Your task to perform on an android device: show emergency info Image 0: 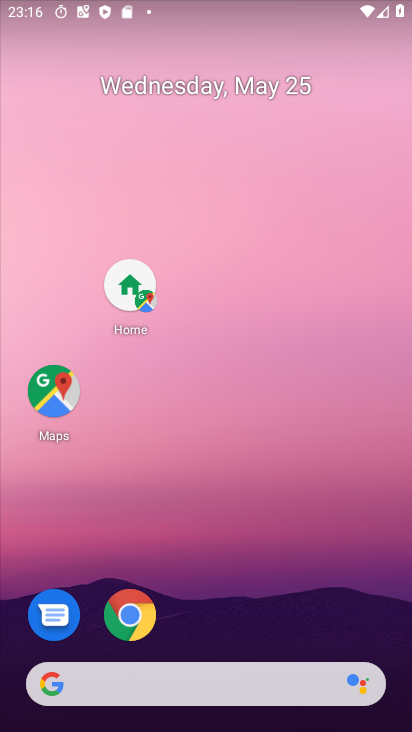
Step 0: drag from (261, 628) to (266, 243)
Your task to perform on an android device: show emergency info Image 1: 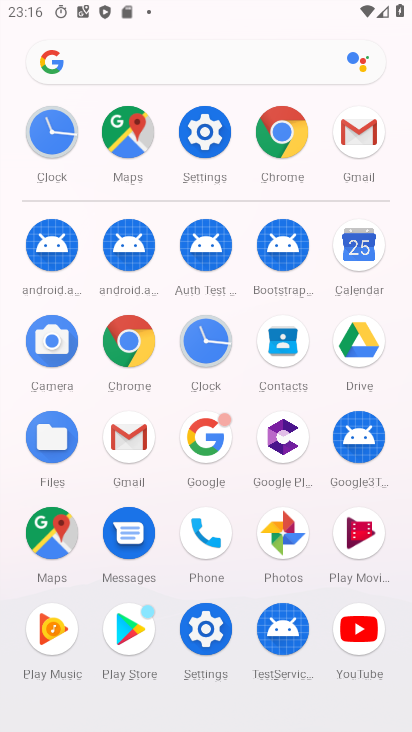
Step 1: click (190, 138)
Your task to perform on an android device: show emergency info Image 2: 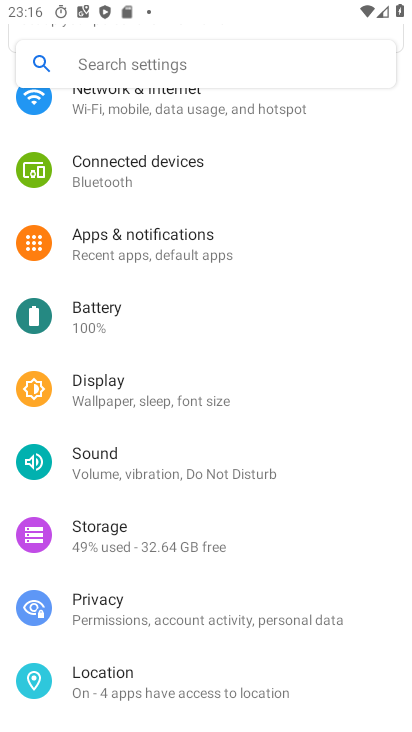
Step 2: drag from (347, 527) to (386, 68)
Your task to perform on an android device: show emergency info Image 3: 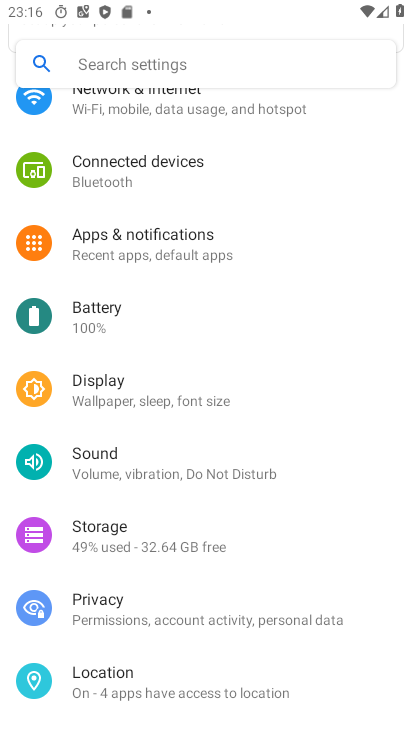
Step 3: drag from (317, 405) to (369, 5)
Your task to perform on an android device: show emergency info Image 4: 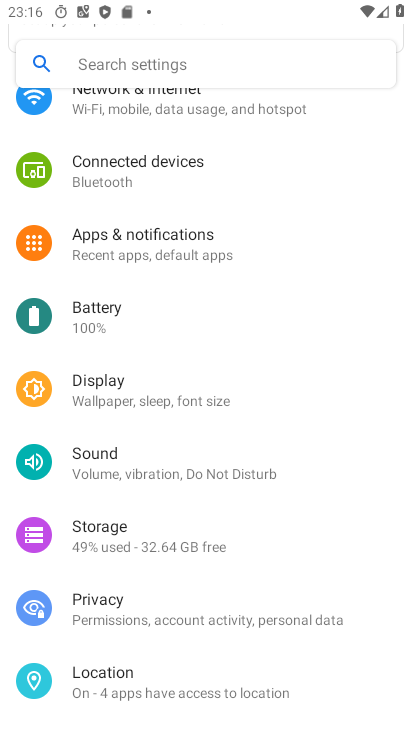
Step 4: drag from (315, 490) to (269, 15)
Your task to perform on an android device: show emergency info Image 5: 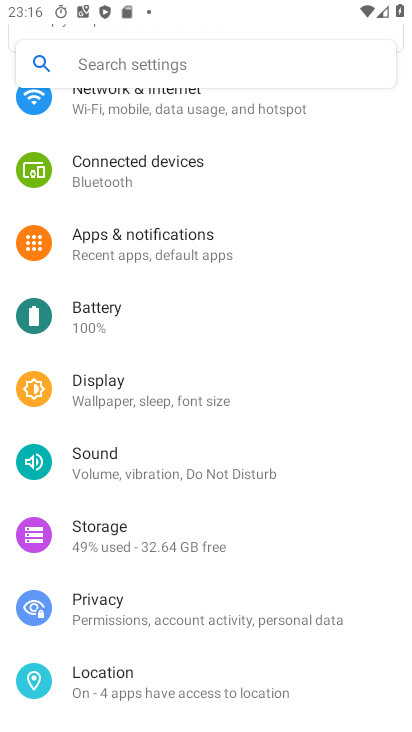
Step 5: drag from (354, 518) to (347, 10)
Your task to perform on an android device: show emergency info Image 6: 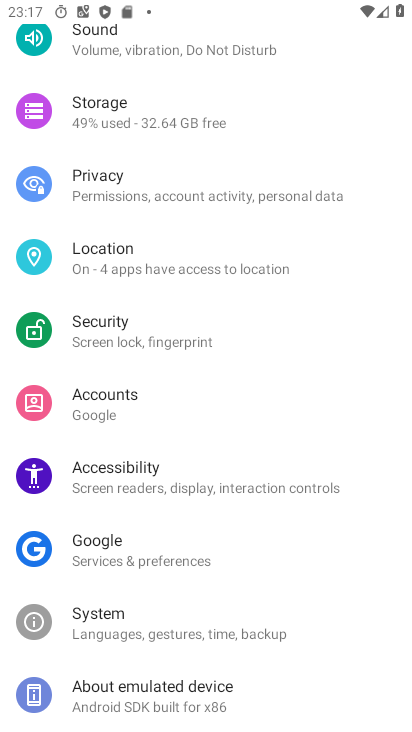
Step 6: click (149, 694)
Your task to perform on an android device: show emergency info Image 7: 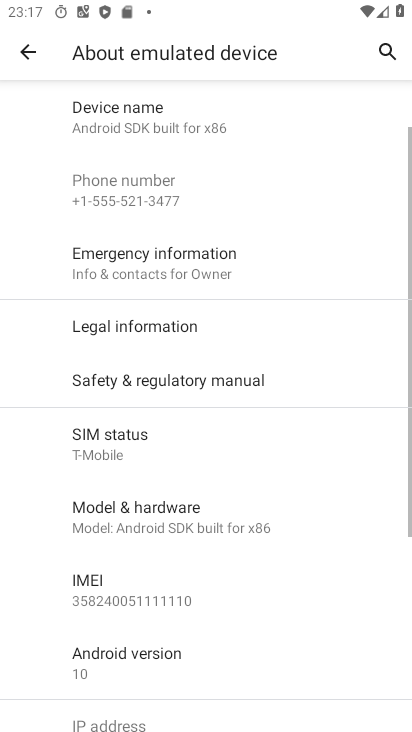
Step 7: click (157, 256)
Your task to perform on an android device: show emergency info Image 8: 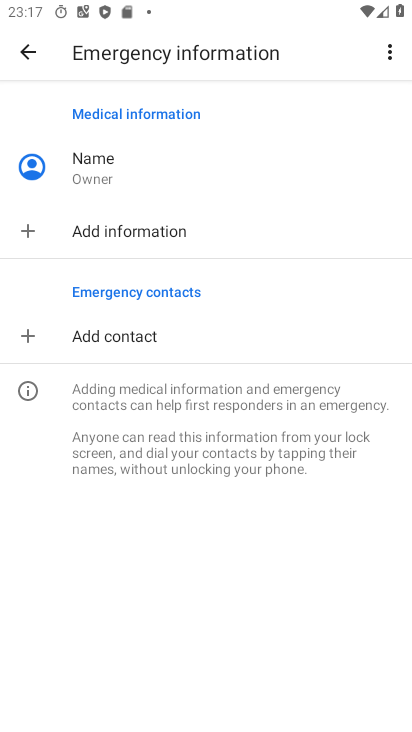
Step 8: task complete